Your task to perform on an android device: Go to network settings Image 0: 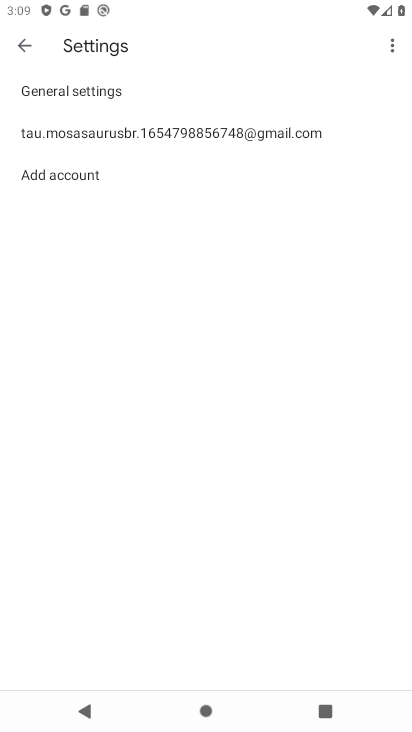
Step 0: press home button
Your task to perform on an android device: Go to network settings Image 1: 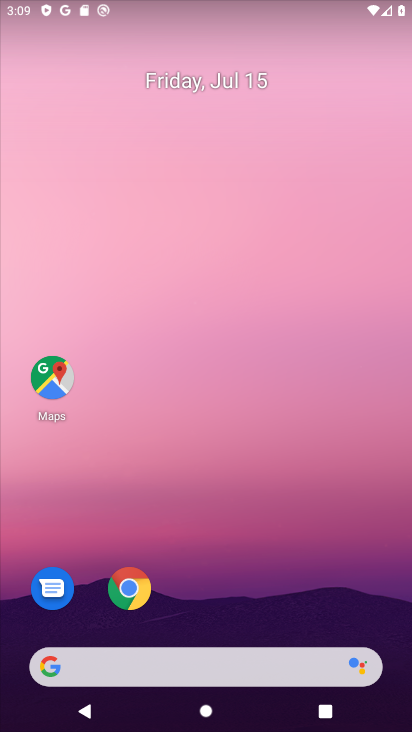
Step 1: drag from (252, 582) to (152, 182)
Your task to perform on an android device: Go to network settings Image 2: 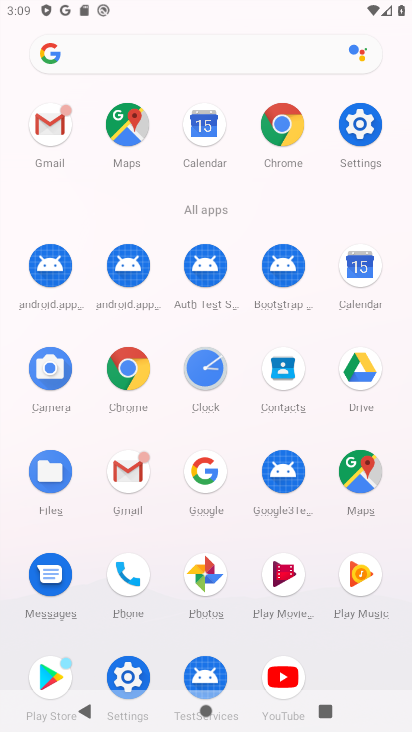
Step 2: click (370, 137)
Your task to perform on an android device: Go to network settings Image 3: 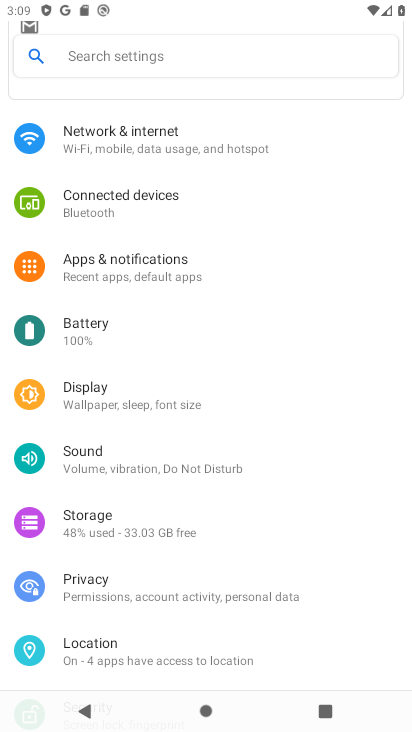
Step 3: click (356, 137)
Your task to perform on an android device: Go to network settings Image 4: 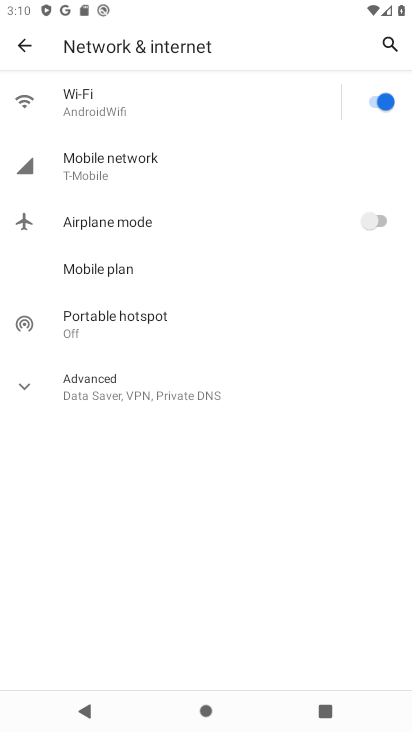
Step 4: task complete